Your task to perform on an android device: Open display settings Image 0: 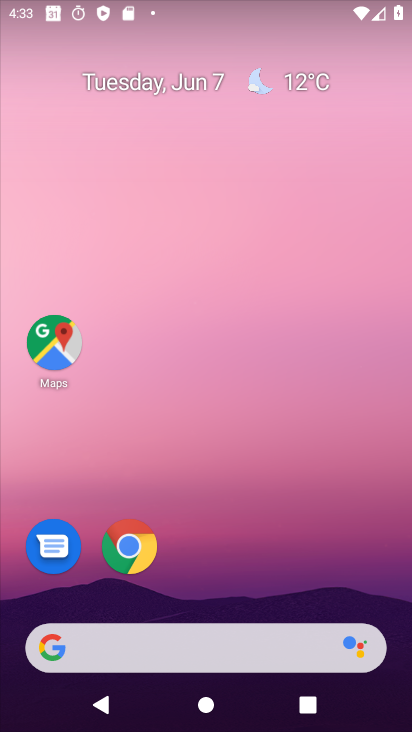
Step 0: drag from (186, 596) to (194, 89)
Your task to perform on an android device: Open display settings Image 1: 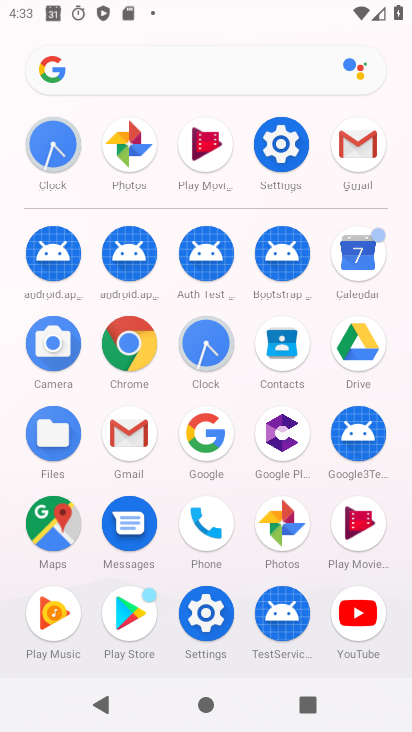
Step 1: click (291, 142)
Your task to perform on an android device: Open display settings Image 2: 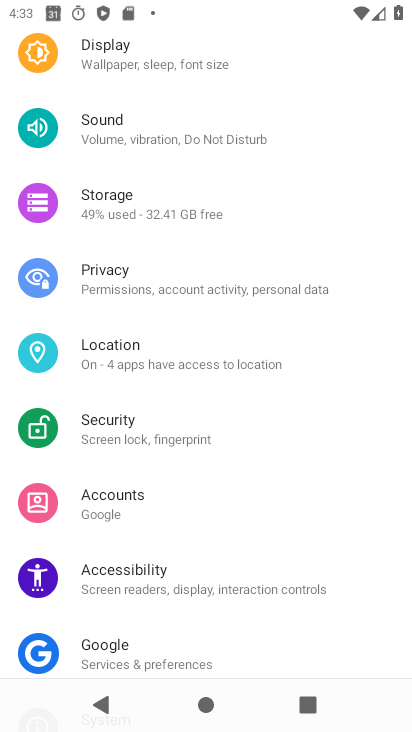
Step 2: click (174, 67)
Your task to perform on an android device: Open display settings Image 3: 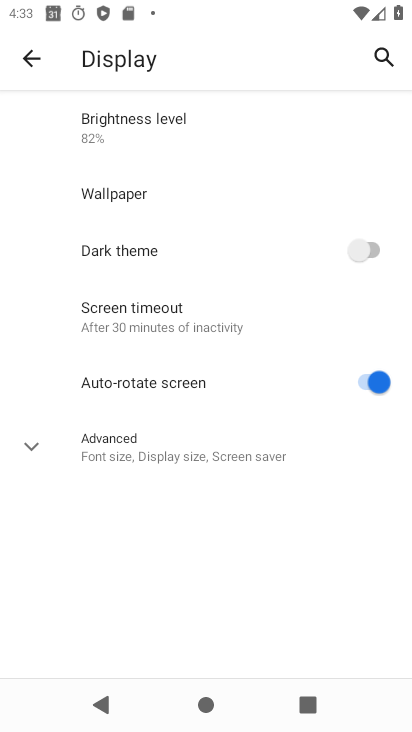
Step 3: task complete